Your task to perform on an android device: change the clock display to show seconds Image 0: 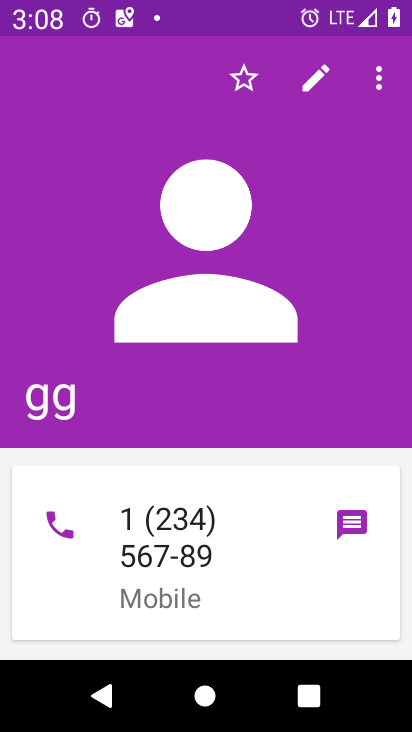
Step 0: press home button
Your task to perform on an android device: change the clock display to show seconds Image 1: 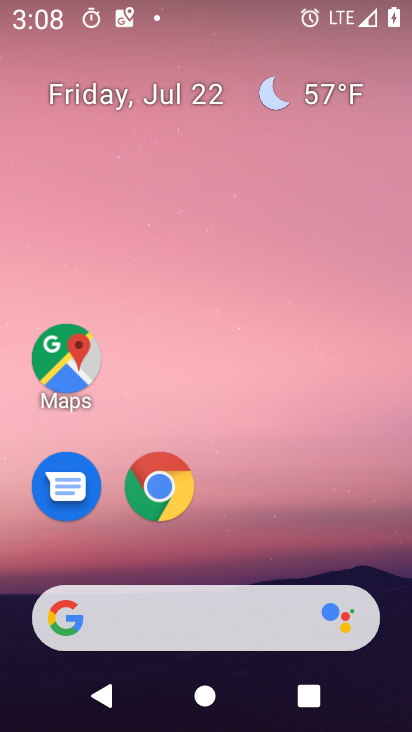
Step 1: drag from (365, 495) to (372, 84)
Your task to perform on an android device: change the clock display to show seconds Image 2: 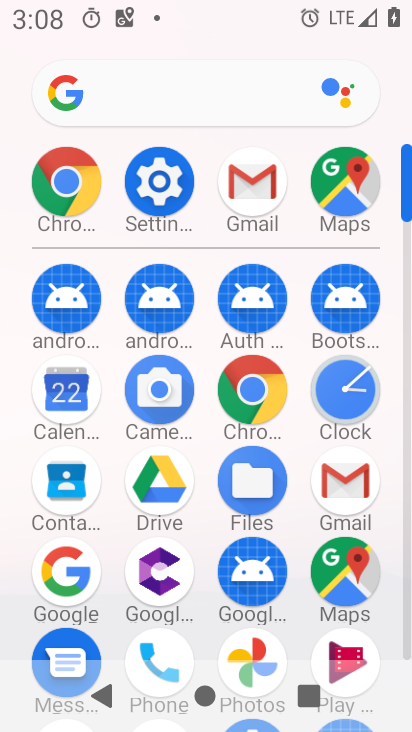
Step 2: click (346, 386)
Your task to perform on an android device: change the clock display to show seconds Image 3: 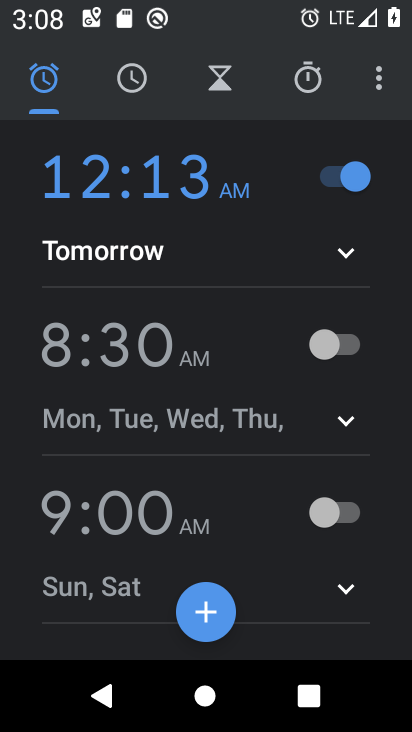
Step 3: click (377, 87)
Your task to perform on an android device: change the clock display to show seconds Image 4: 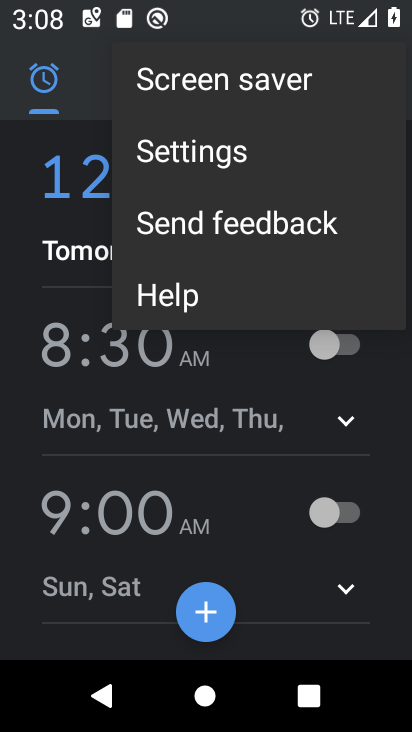
Step 4: click (284, 156)
Your task to perform on an android device: change the clock display to show seconds Image 5: 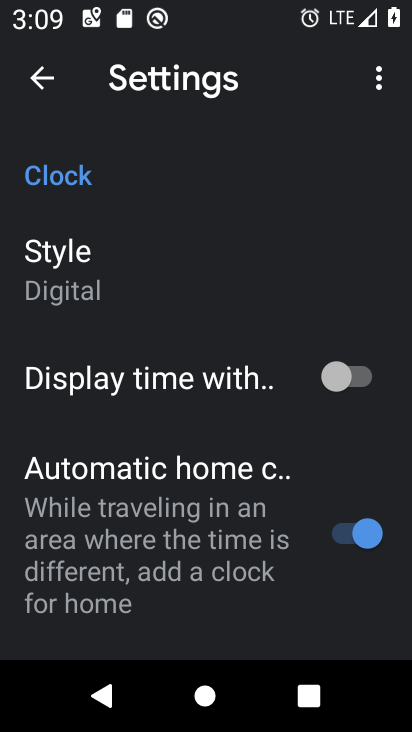
Step 5: drag from (273, 422) to (273, 344)
Your task to perform on an android device: change the clock display to show seconds Image 6: 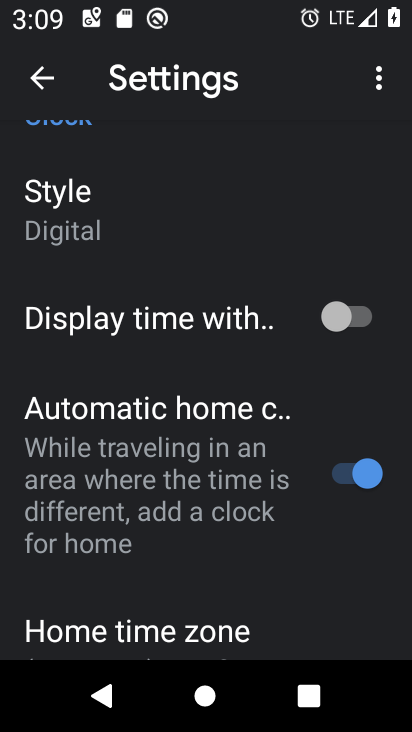
Step 6: click (333, 325)
Your task to perform on an android device: change the clock display to show seconds Image 7: 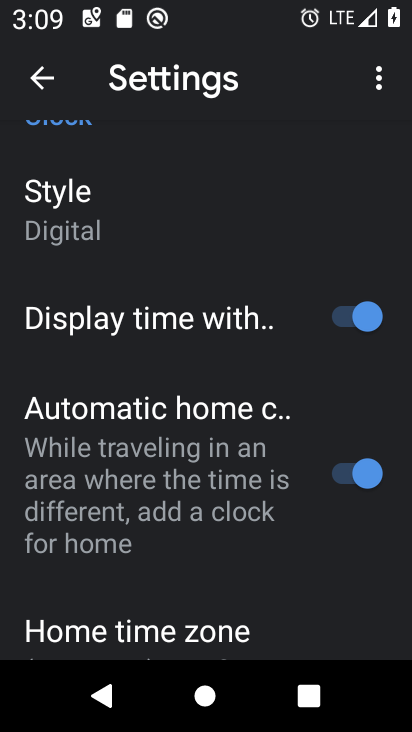
Step 7: task complete